Your task to perform on an android device: Go to Android settings Image 0: 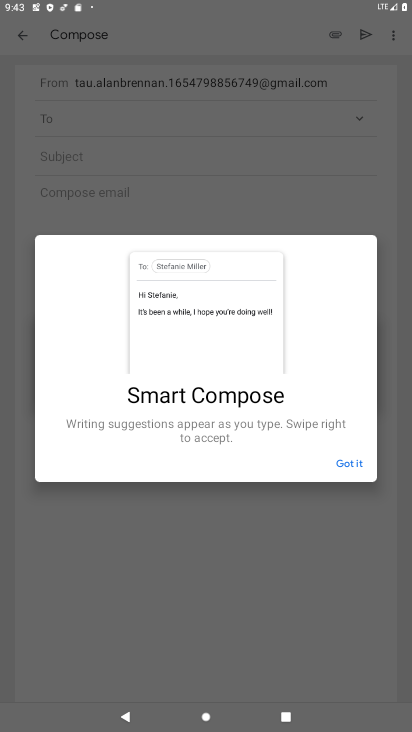
Step 0: press home button
Your task to perform on an android device: Go to Android settings Image 1: 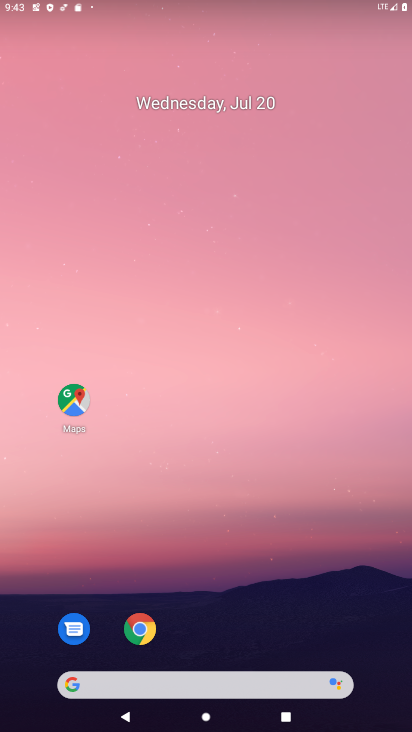
Step 1: drag from (321, 627) to (300, 12)
Your task to perform on an android device: Go to Android settings Image 2: 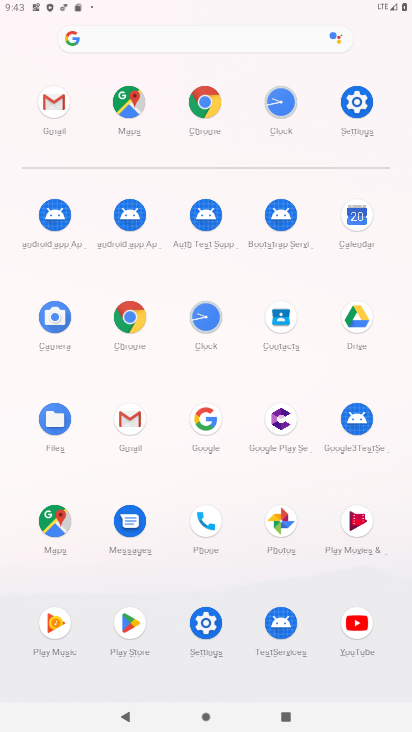
Step 2: click (209, 614)
Your task to perform on an android device: Go to Android settings Image 3: 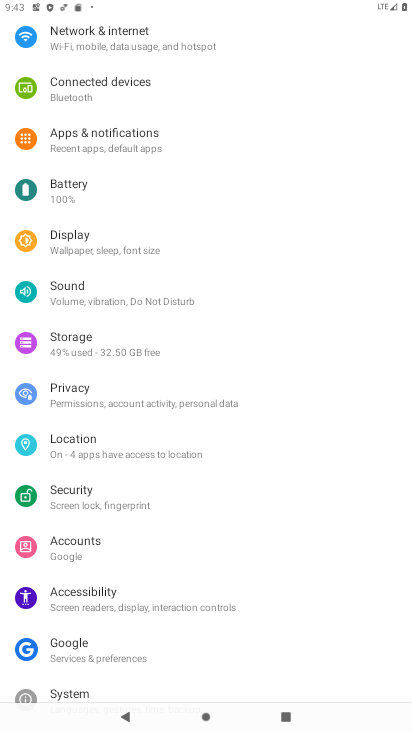
Step 3: drag from (117, 172) to (113, 9)
Your task to perform on an android device: Go to Android settings Image 4: 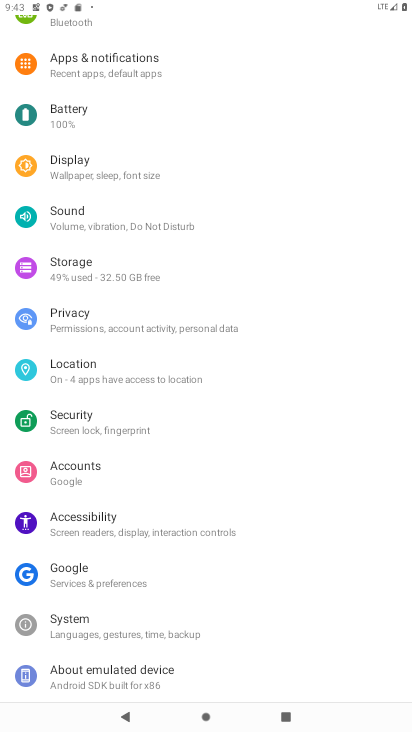
Step 4: click (110, 666)
Your task to perform on an android device: Go to Android settings Image 5: 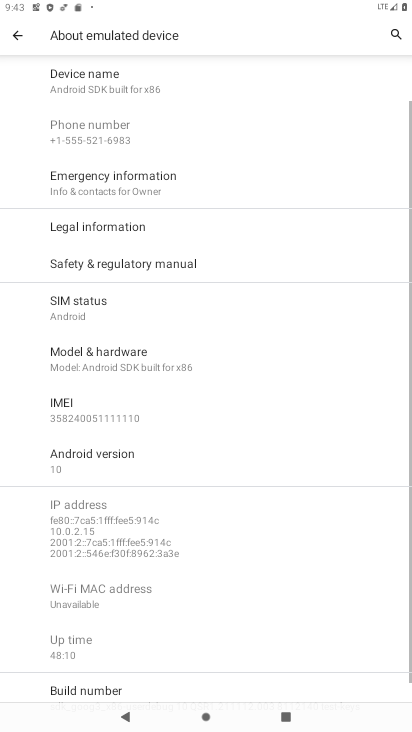
Step 5: click (111, 458)
Your task to perform on an android device: Go to Android settings Image 6: 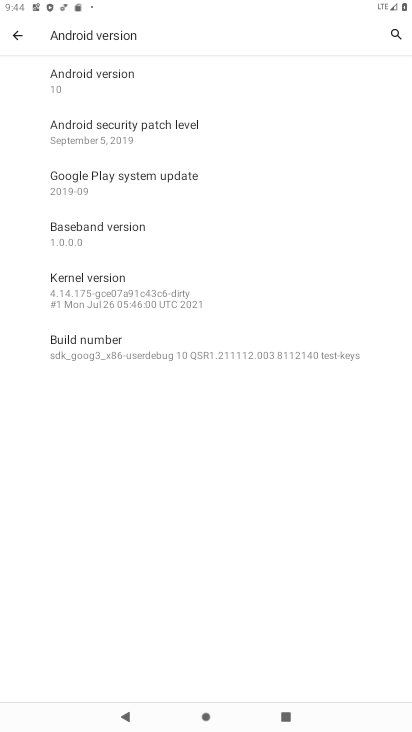
Step 6: task complete